Your task to perform on an android device: move a message to another label in the gmail app Image 0: 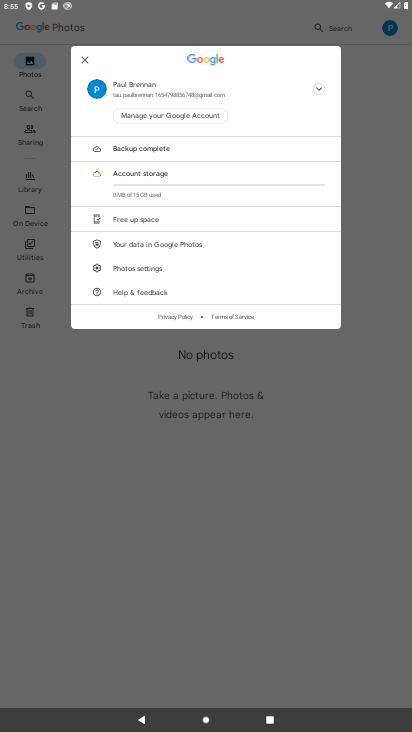
Step 0: task complete